Your task to perform on an android device: Show the shopping cart on newegg. Image 0: 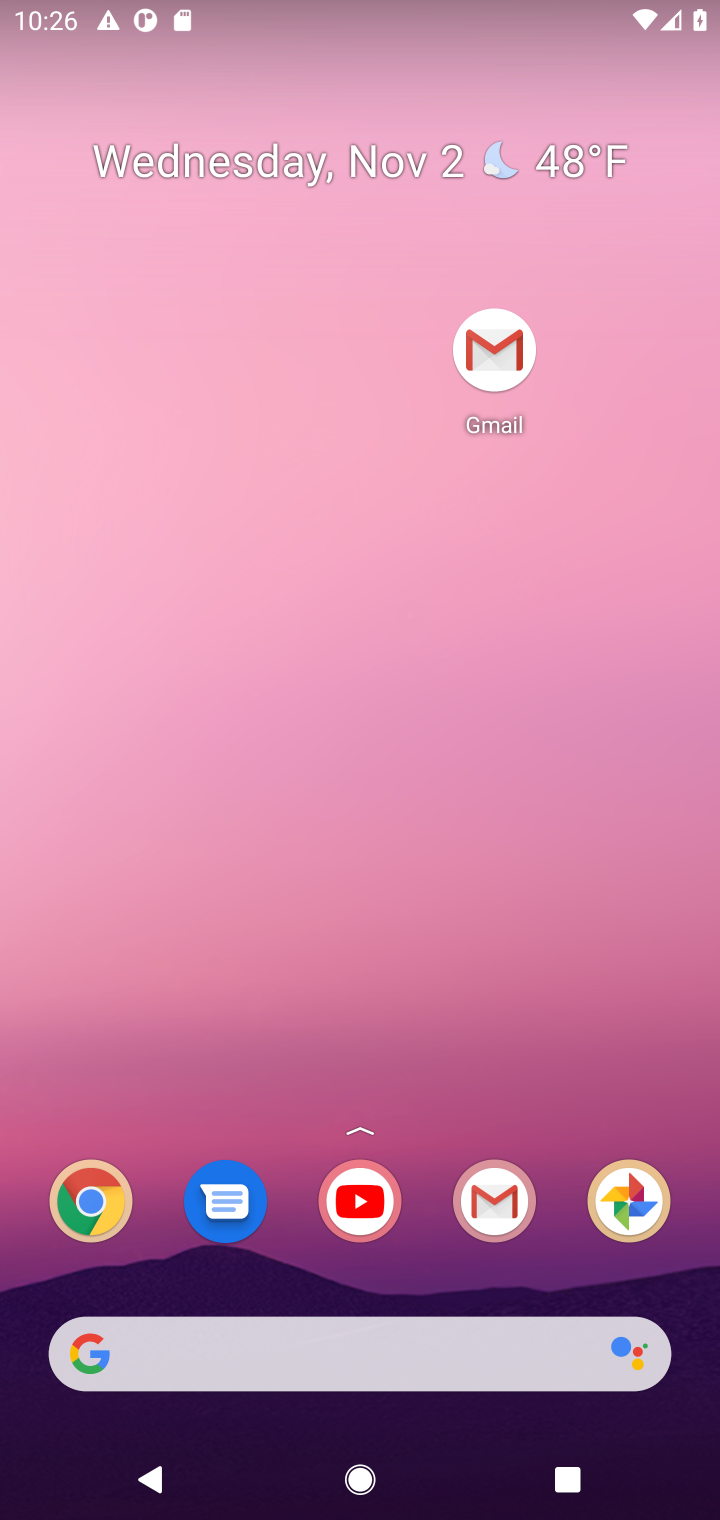
Step 0: drag from (427, 1251) to (312, 250)
Your task to perform on an android device: Show the shopping cart on newegg. Image 1: 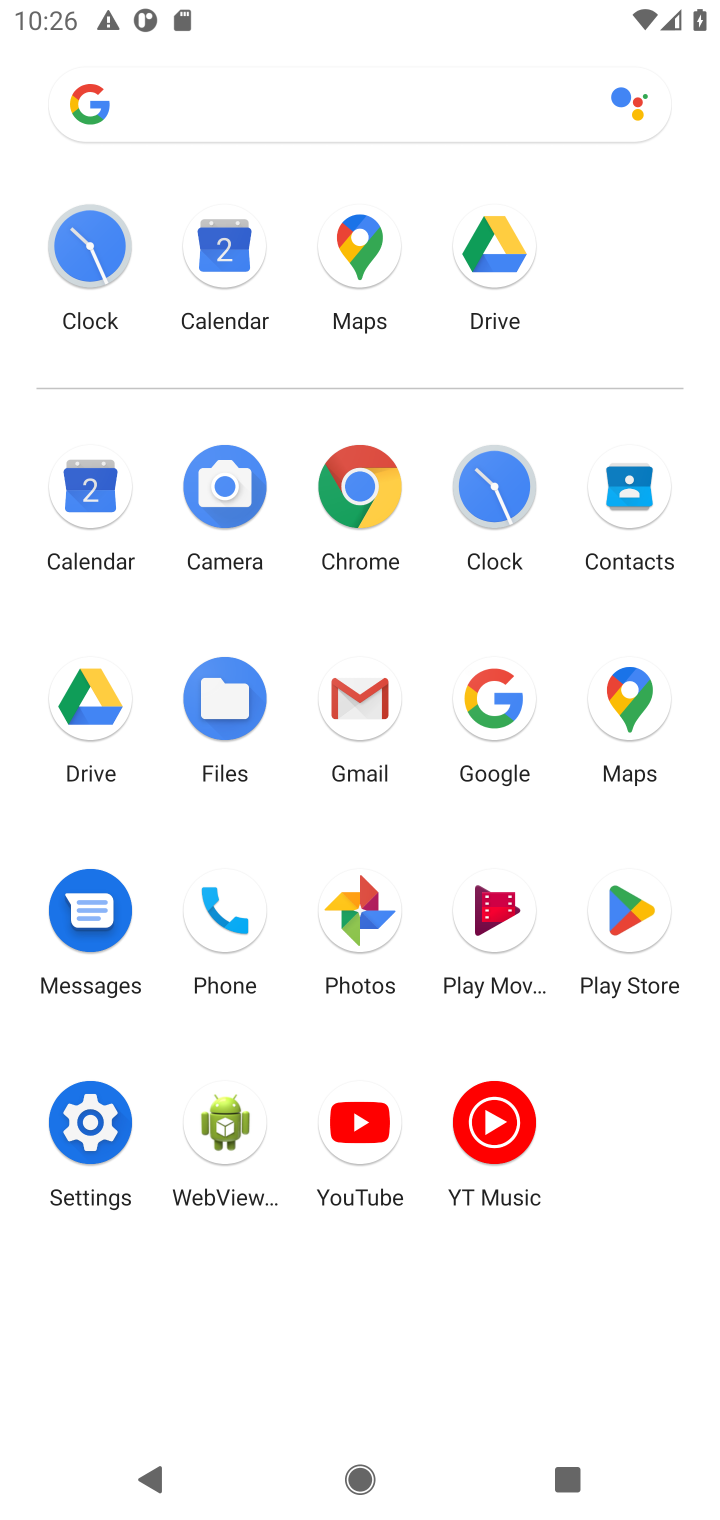
Step 1: click (358, 484)
Your task to perform on an android device: Show the shopping cart on newegg. Image 2: 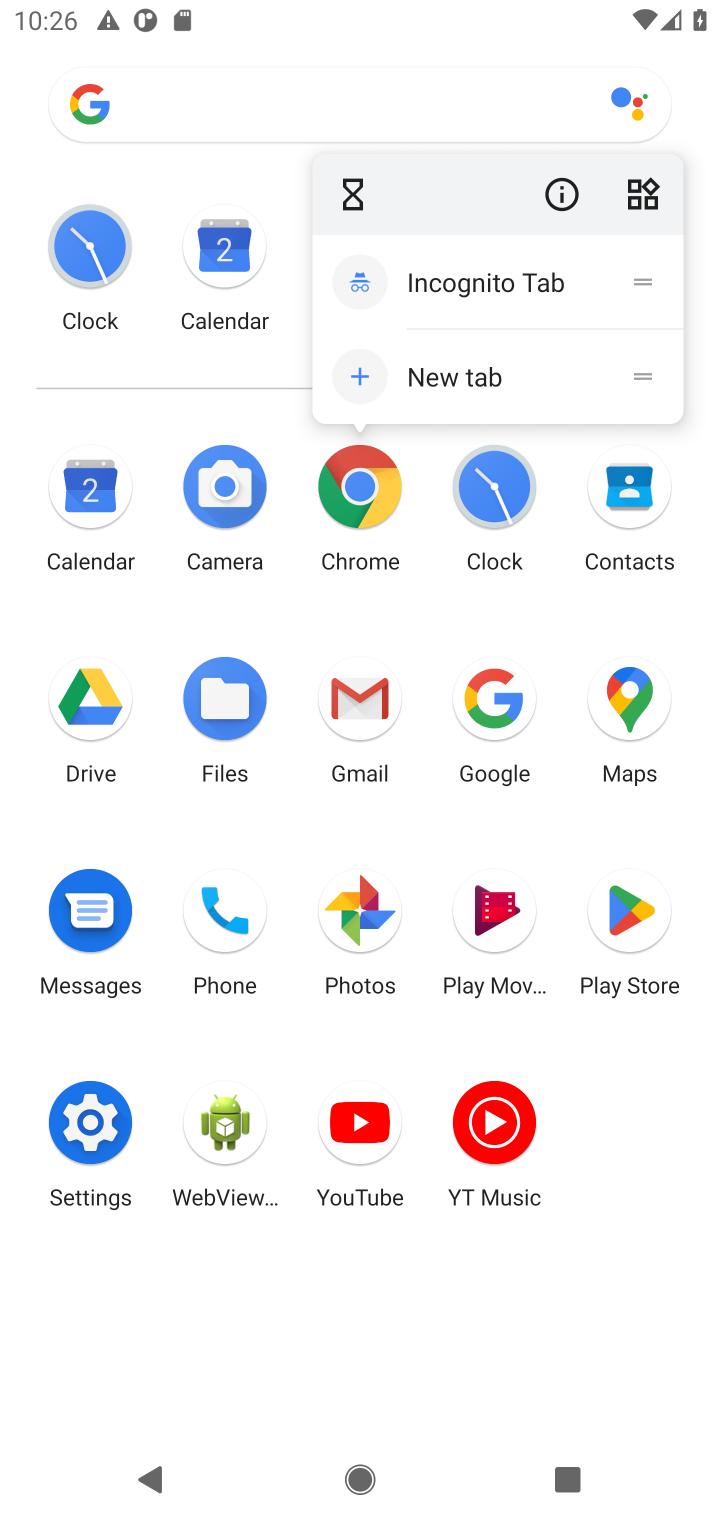
Step 2: click (360, 488)
Your task to perform on an android device: Show the shopping cart on newegg. Image 3: 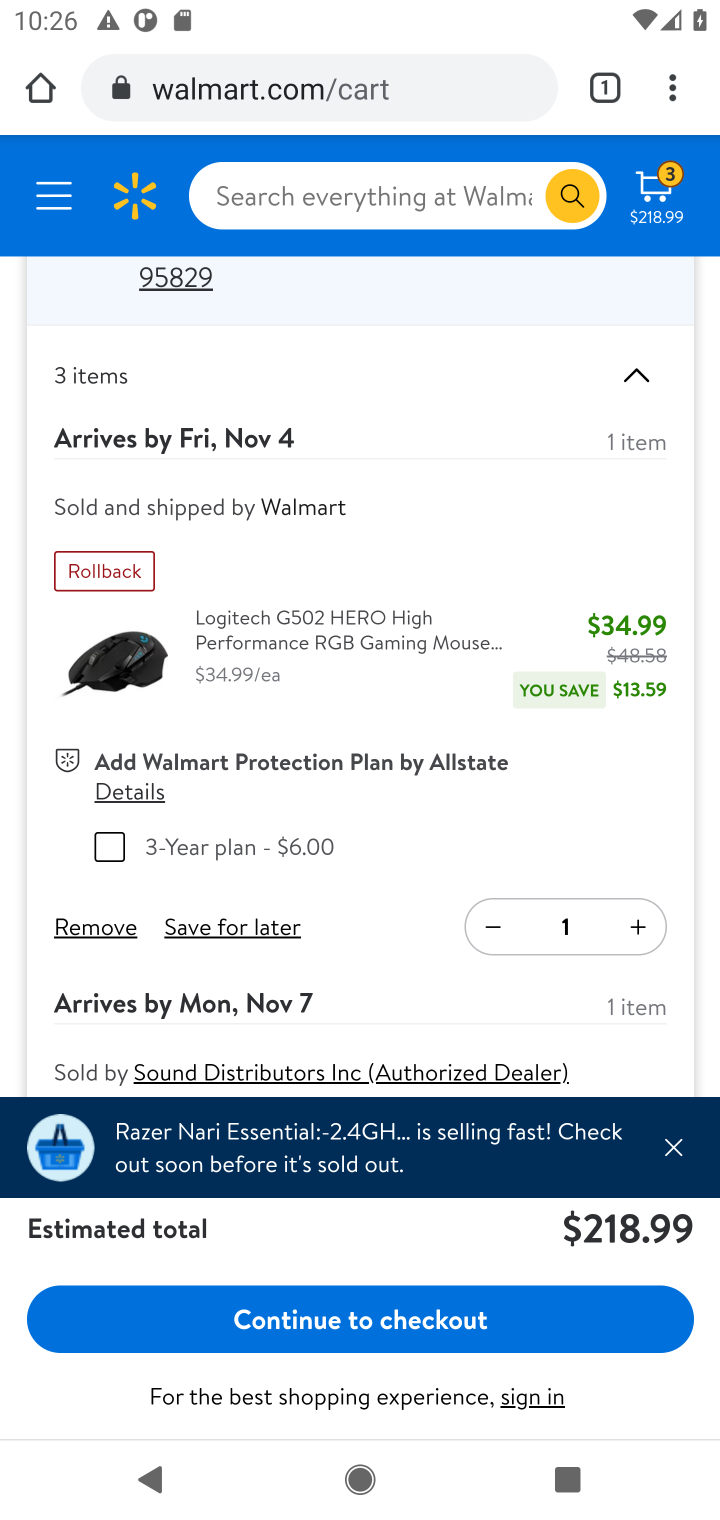
Step 3: click (461, 82)
Your task to perform on an android device: Show the shopping cart on newegg. Image 4: 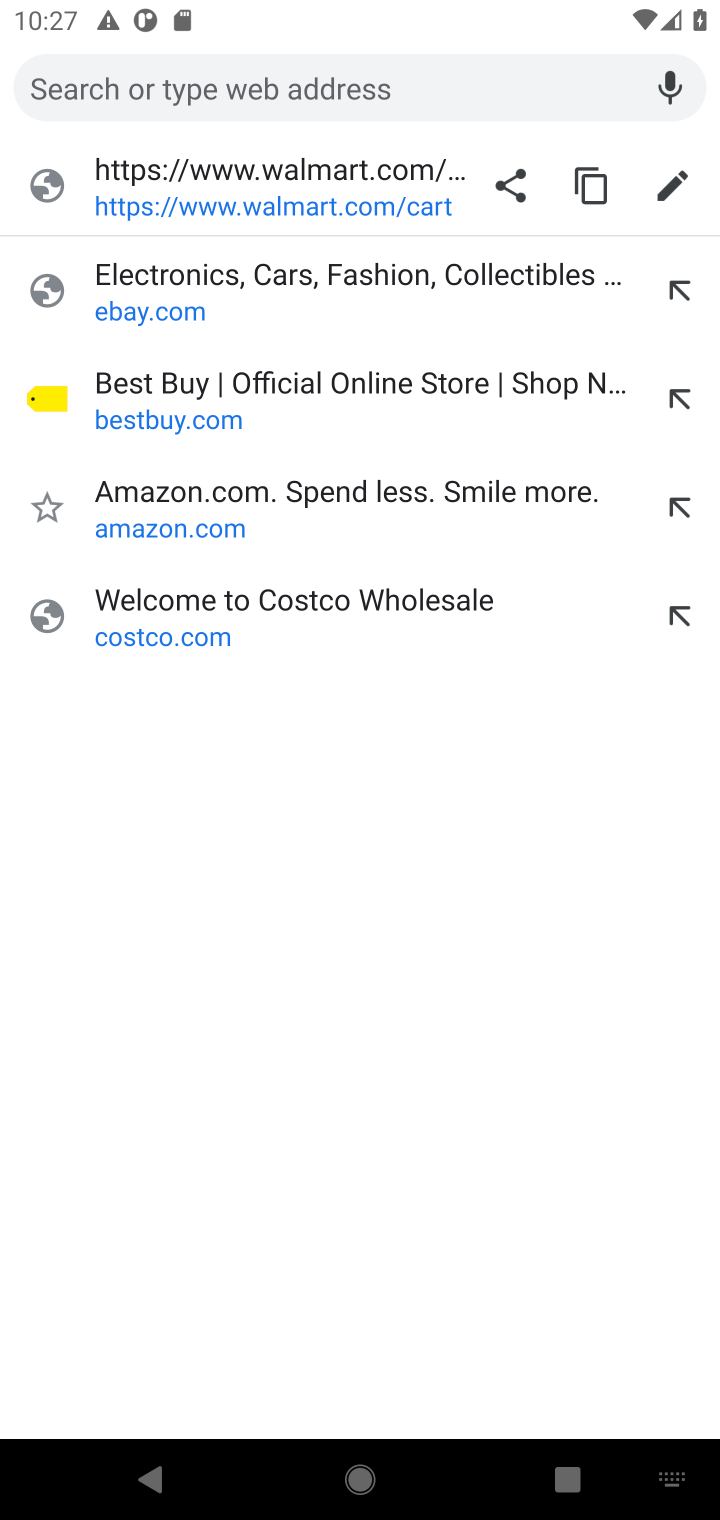
Step 4: type "newegg.com"
Your task to perform on an android device: Show the shopping cart on newegg. Image 5: 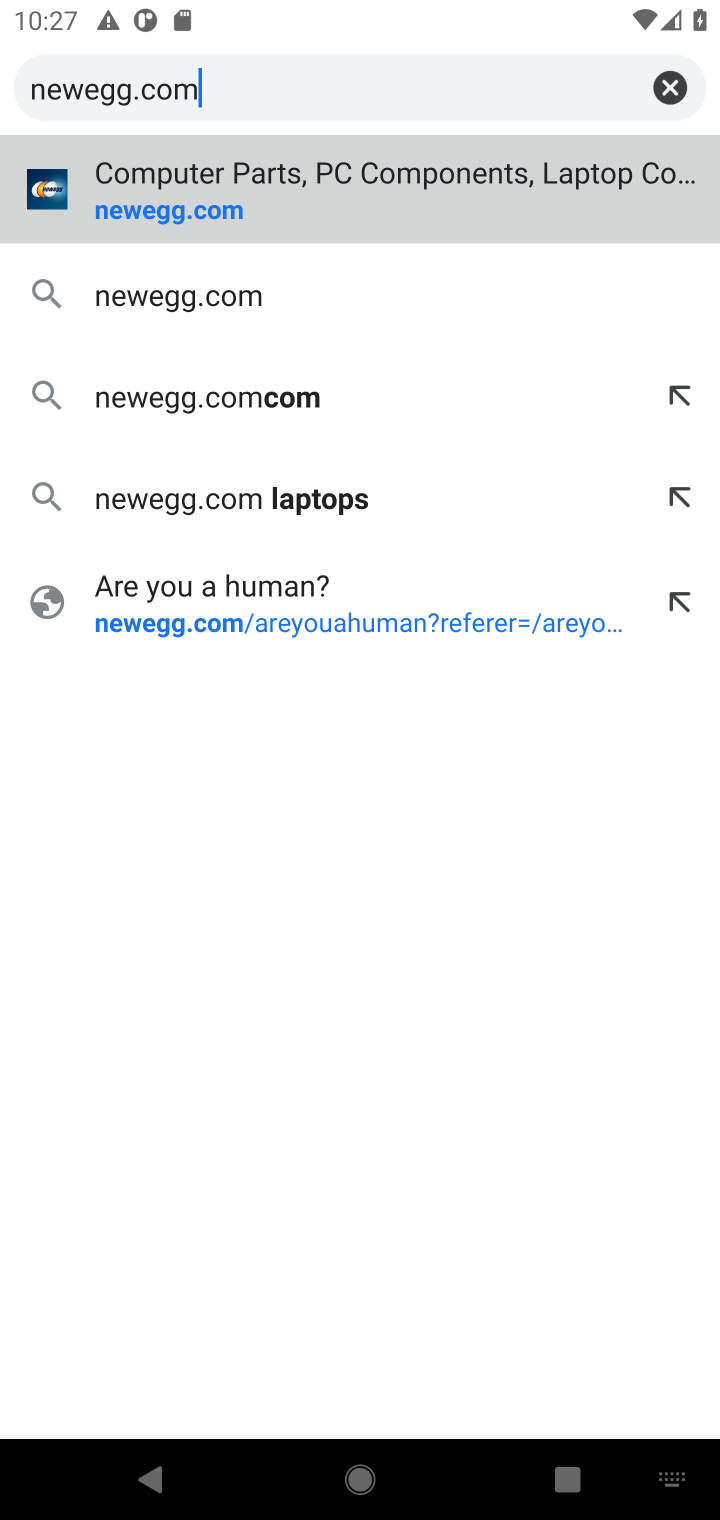
Step 5: press enter
Your task to perform on an android device: Show the shopping cart on newegg. Image 6: 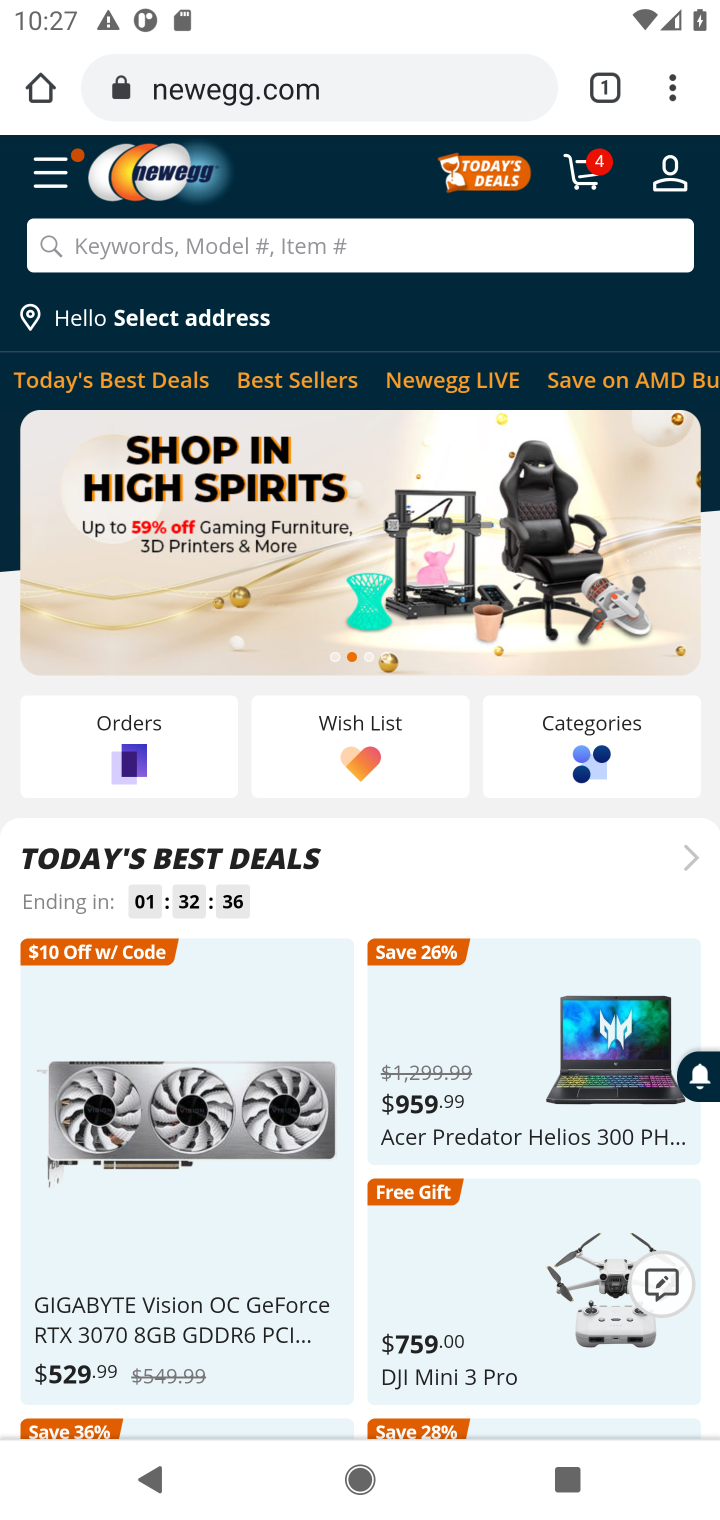
Step 6: click (597, 181)
Your task to perform on an android device: Show the shopping cart on newegg. Image 7: 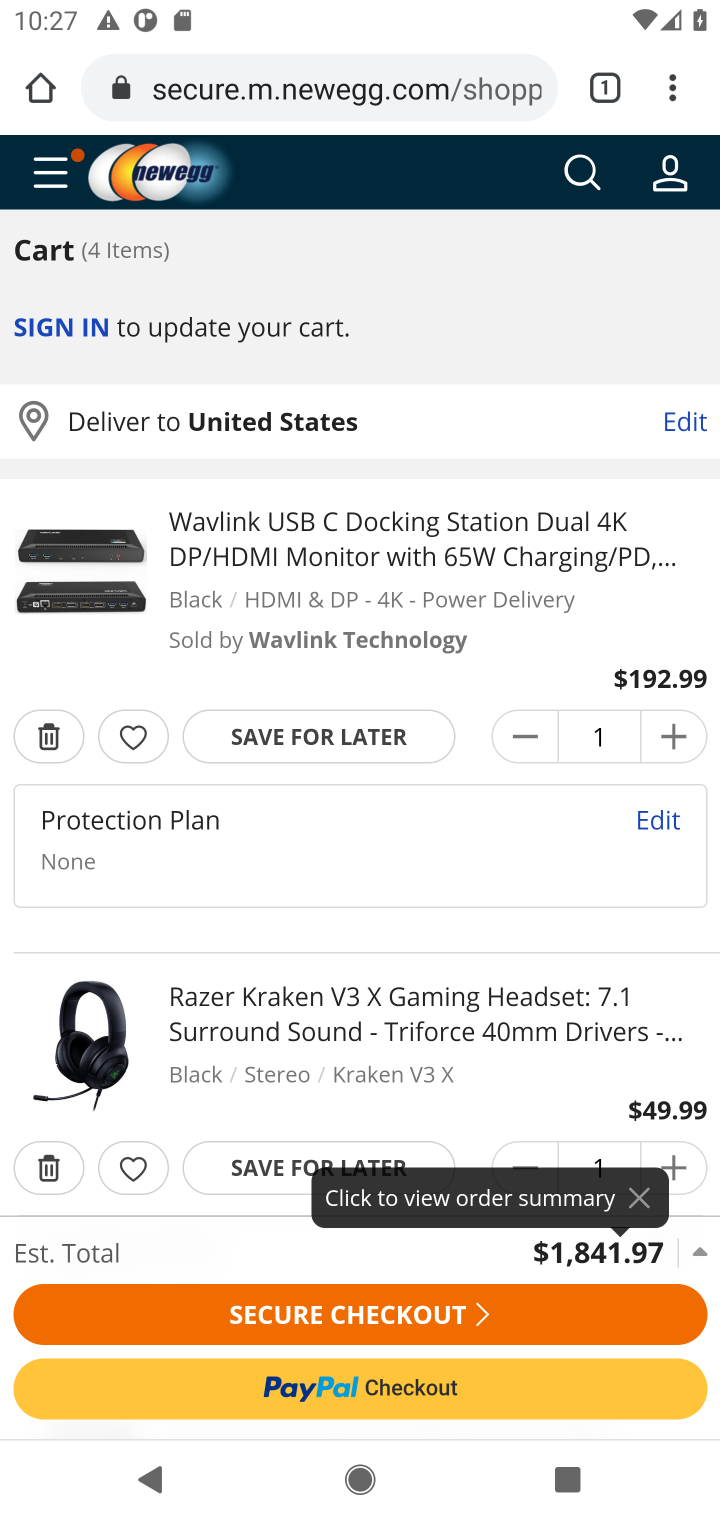
Step 7: task complete